Your task to perform on an android device: Show me popular games on the Play Store Image 0: 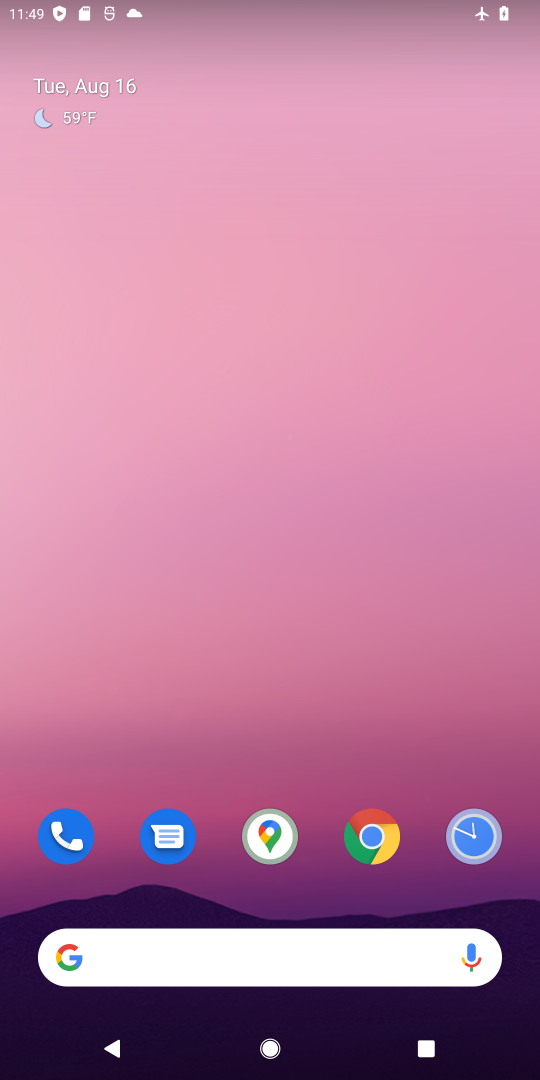
Step 0: drag from (241, 962) to (280, 231)
Your task to perform on an android device: Show me popular games on the Play Store Image 1: 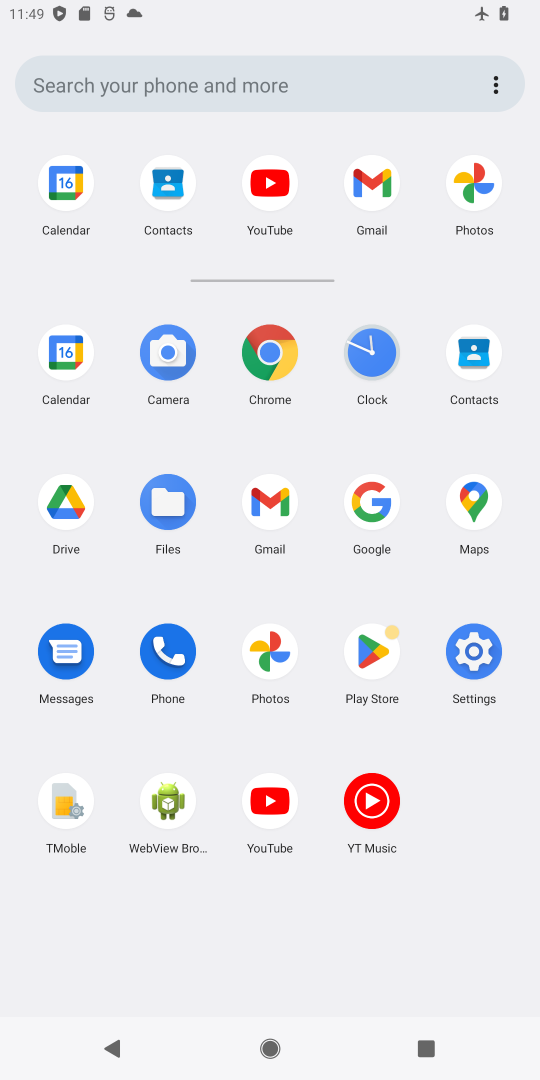
Step 1: click (377, 657)
Your task to perform on an android device: Show me popular games on the Play Store Image 2: 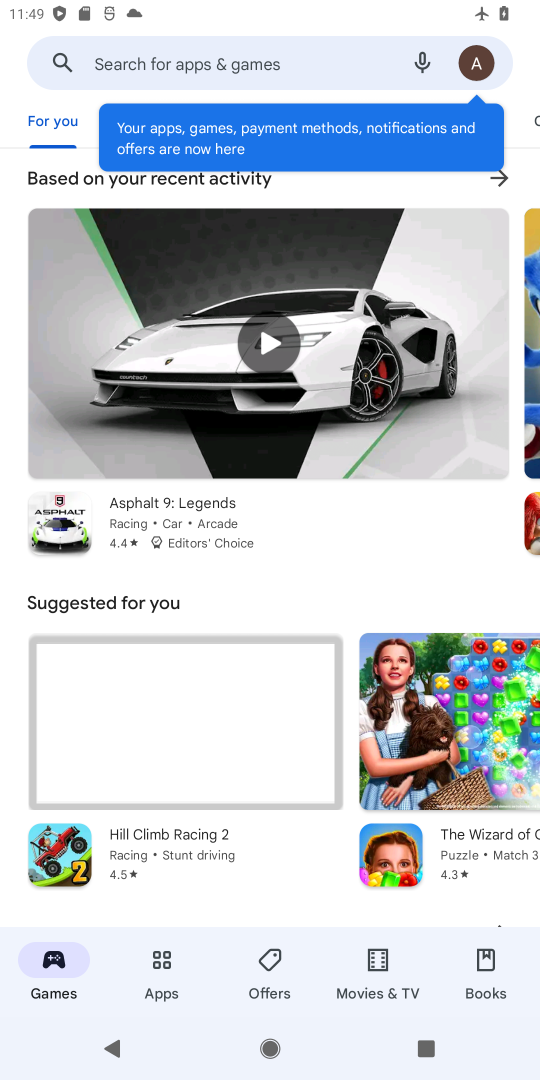
Step 2: click (320, 74)
Your task to perform on an android device: Show me popular games on the Play Store Image 3: 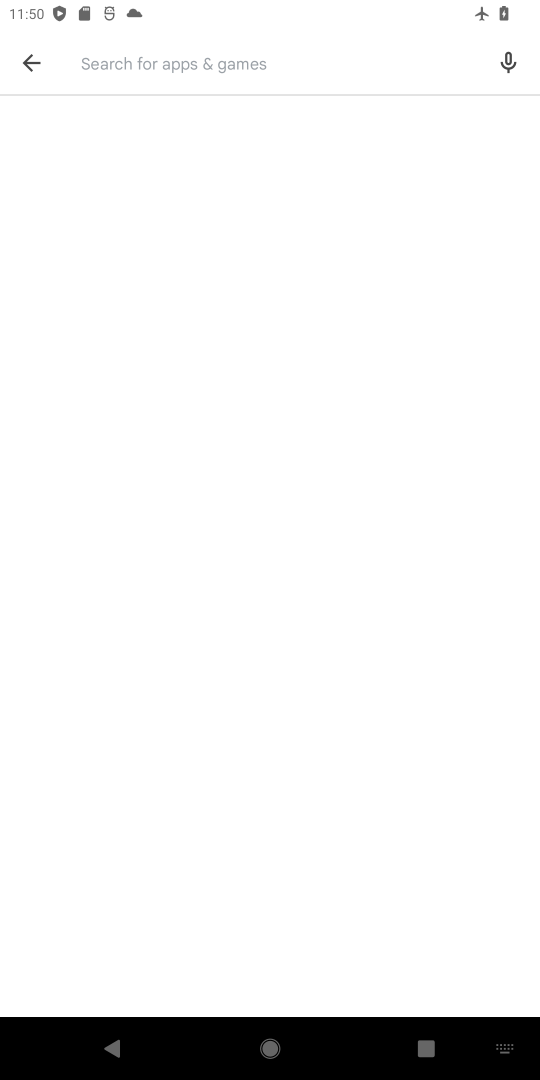
Step 3: type "popular games"
Your task to perform on an android device: Show me popular games on the Play Store Image 4: 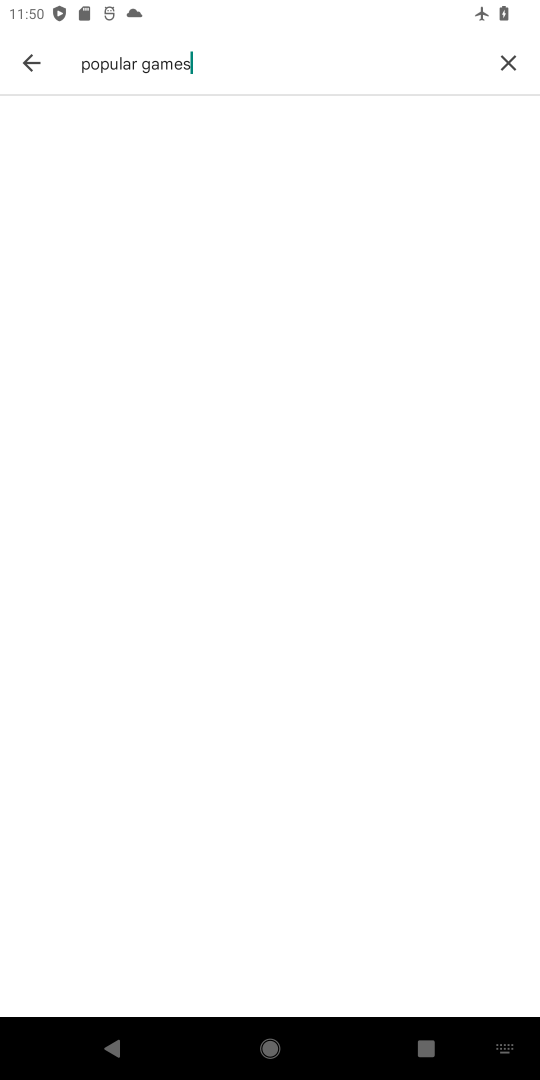
Step 4: task complete